Your task to perform on an android device: open chrome privacy settings Image 0: 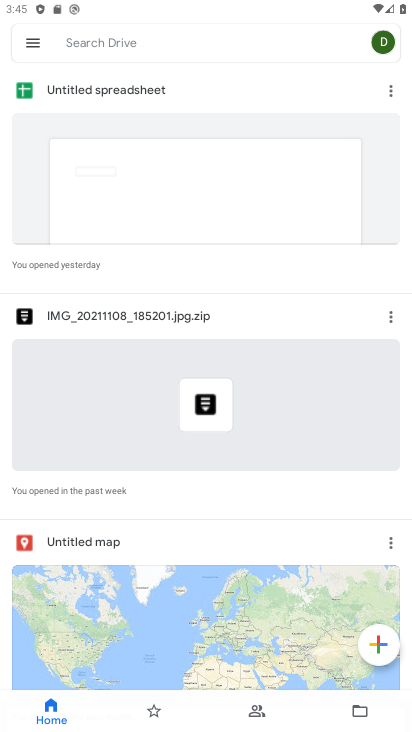
Step 0: press home button
Your task to perform on an android device: open chrome privacy settings Image 1: 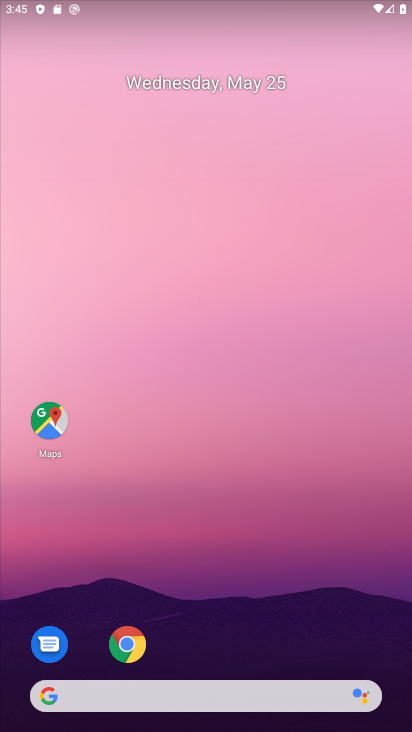
Step 1: click (114, 640)
Your task to perform on an android device: open chrome privacy settings Image 2: 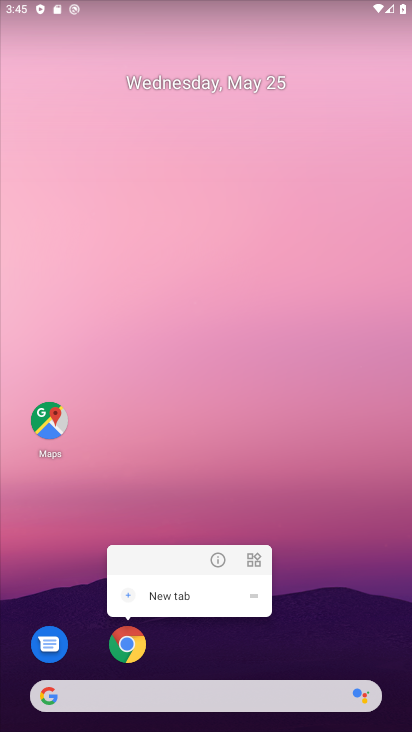
Step 2: click (128, 654)
Your task to perform on an android device: open chrome privacy settings Image 3: 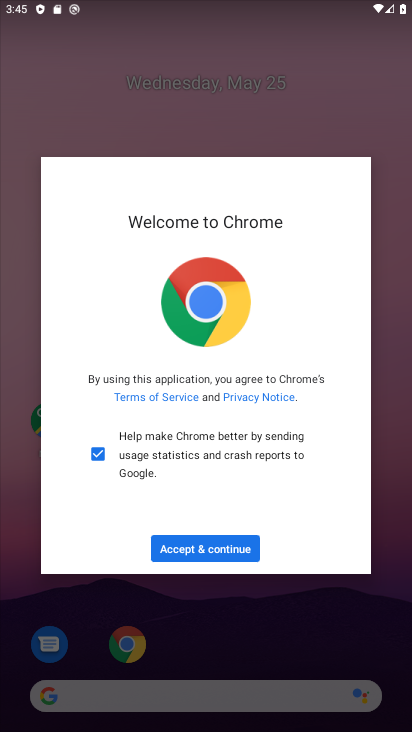
Step 3: click (189, 542)
Your task to perform on an android device: open chrome privacy settings Image 4: 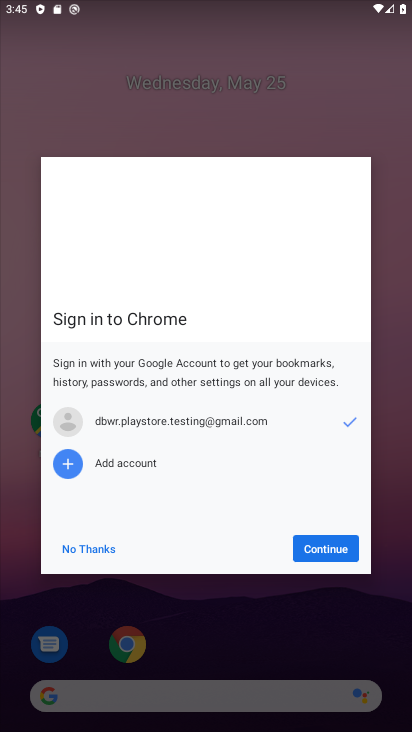
Step 4: click (332, 557)
Your task to perform on an android device: open chrome privacy settings Image 5: 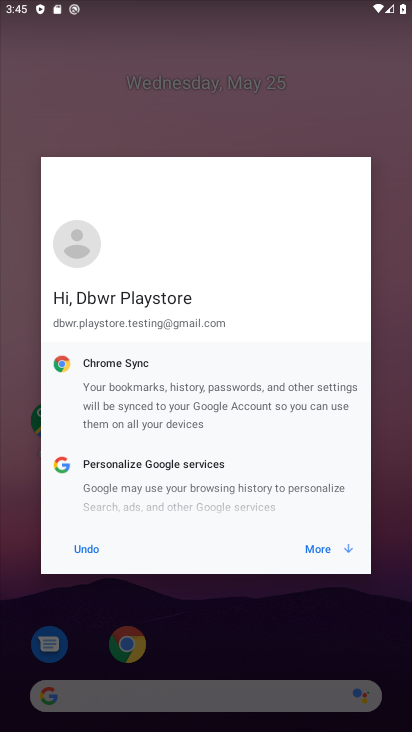
Step 5: click (323, 563)
Your task to perform on an android device: open chrome privacy settings Image 6: 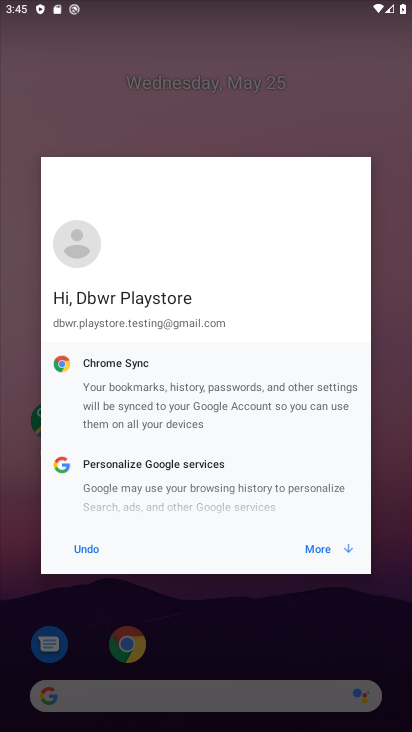
Step 6: click (336, 565)
Your task to perform on an android device: open chrome privacy settings Image 7: 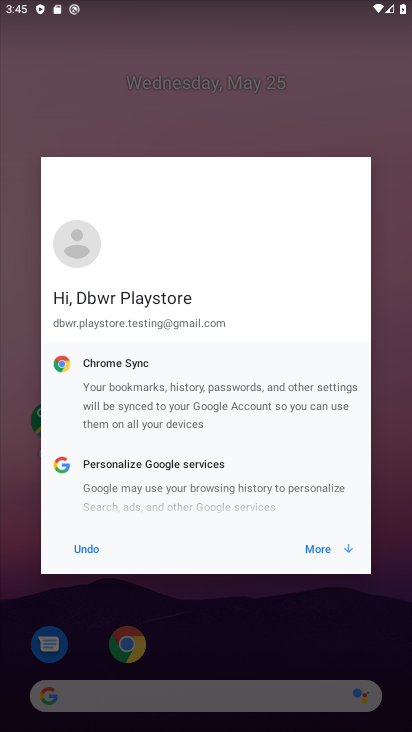
Step 7: click (342, 559)
Your task to perform on an android device: open chrome privacy settings Image 8: 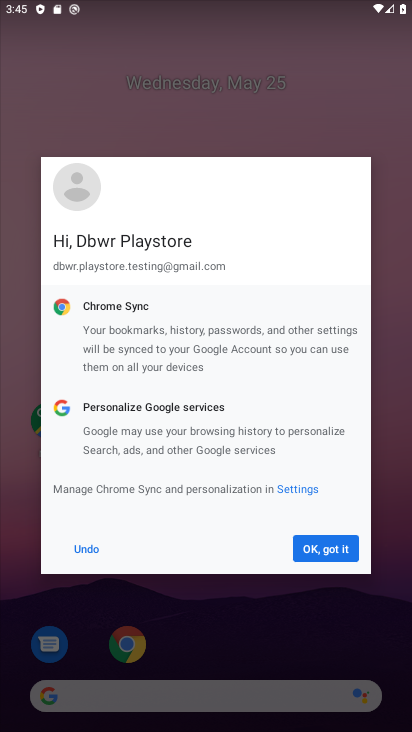
Step 8: click (334, 560)
Your task to perform on an android device: open chrome privacy settings Image 9: 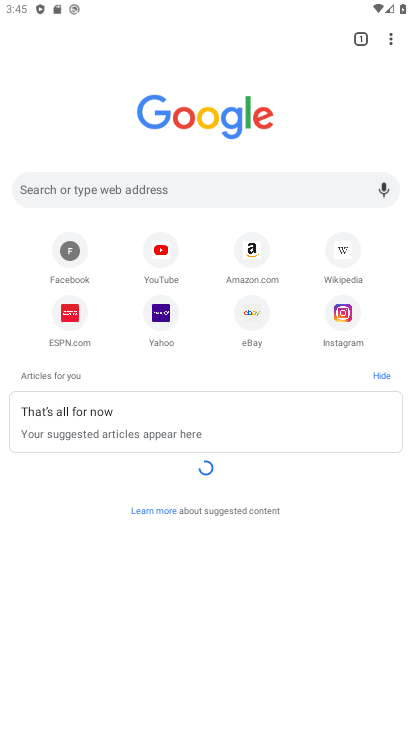
Step 9: drag from (390, 35) to (322, 327)
Your task to perform on an android device: open chrome privacy settings Image 10: 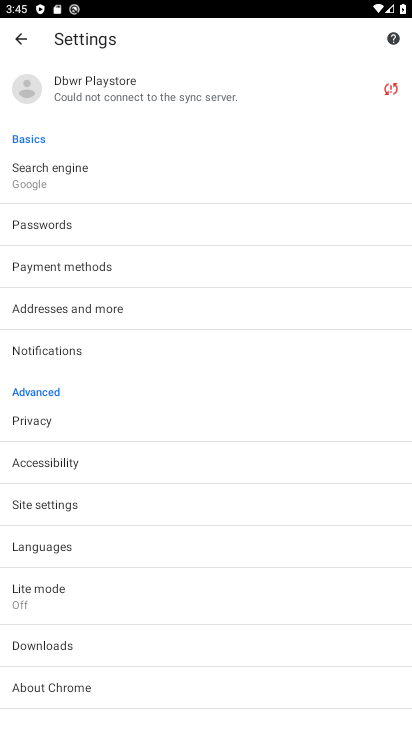
Step 10: click (104, 412)
Your task to perform on an android device: open chrome privacy settings Image 11: 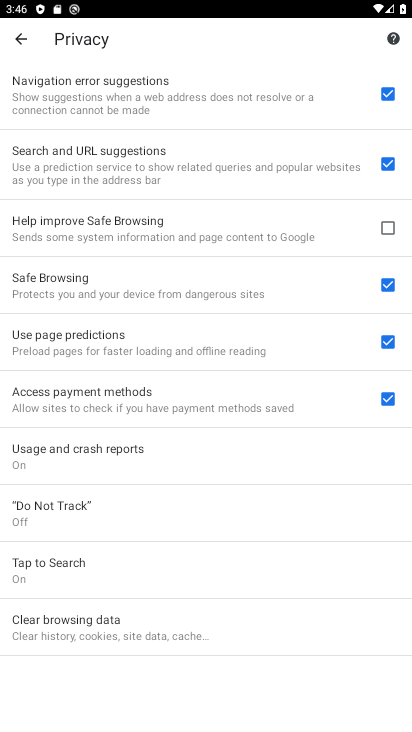
Step 11: task complete